Your task to perform on an android device: open app "DuckDuckGo Privacy Browser" (install if not already installed) Image 0: 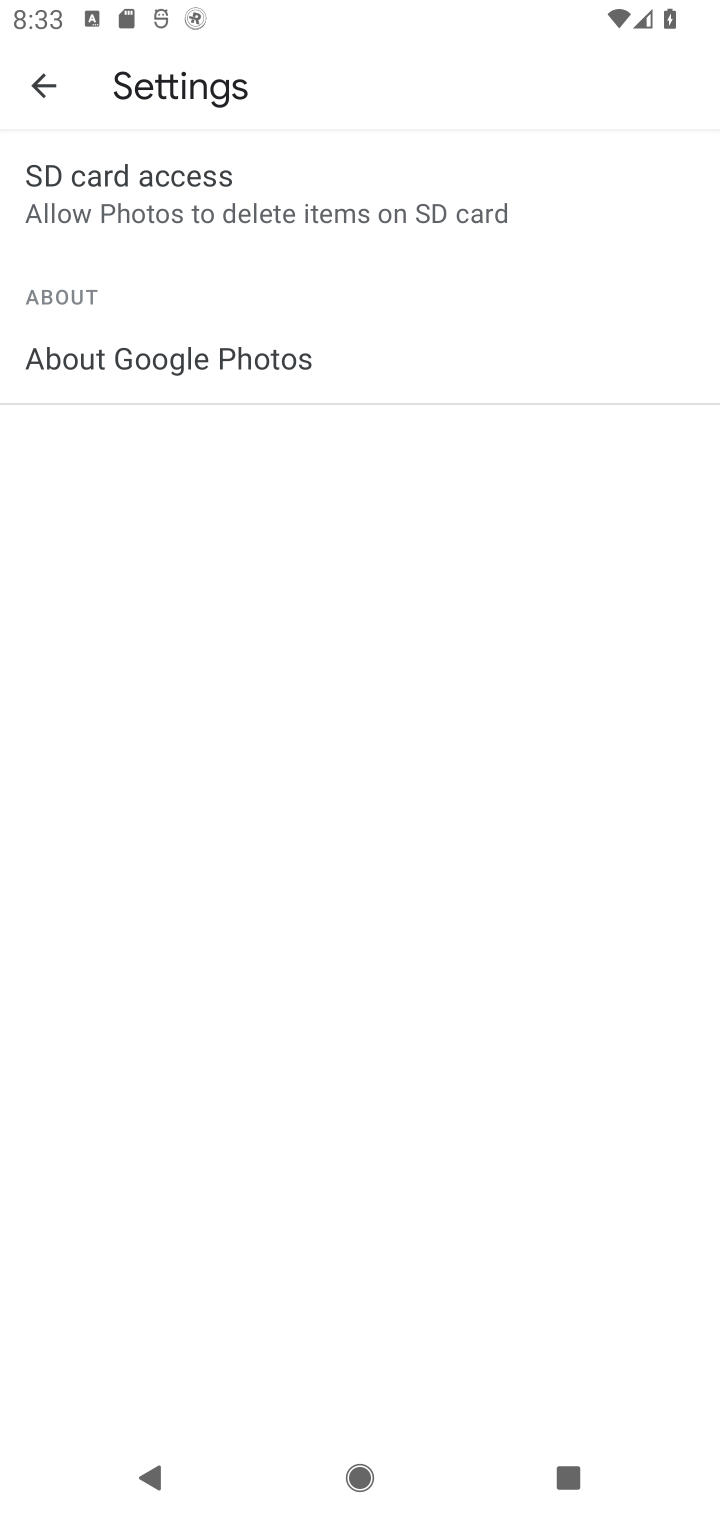
Step 0: press home button
Your task to perform on an android device: open app "DuckDuckGo Privacy Browser" (install if not already installed) Image 1: 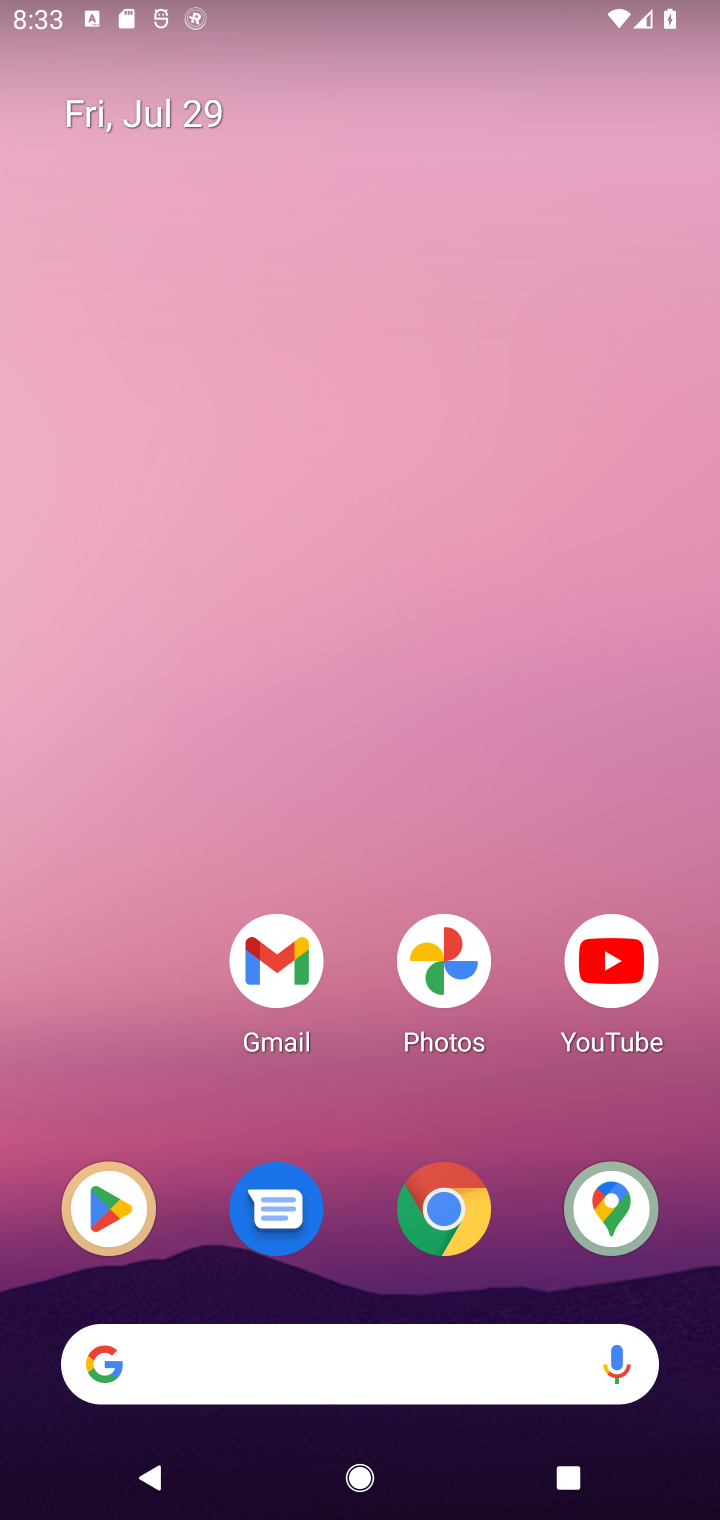
Step 1: click (104, 1220)
Your task to perform on an android device: open app "DuckDuckGo Privacy Browser" (install if not already installed) Image 2: 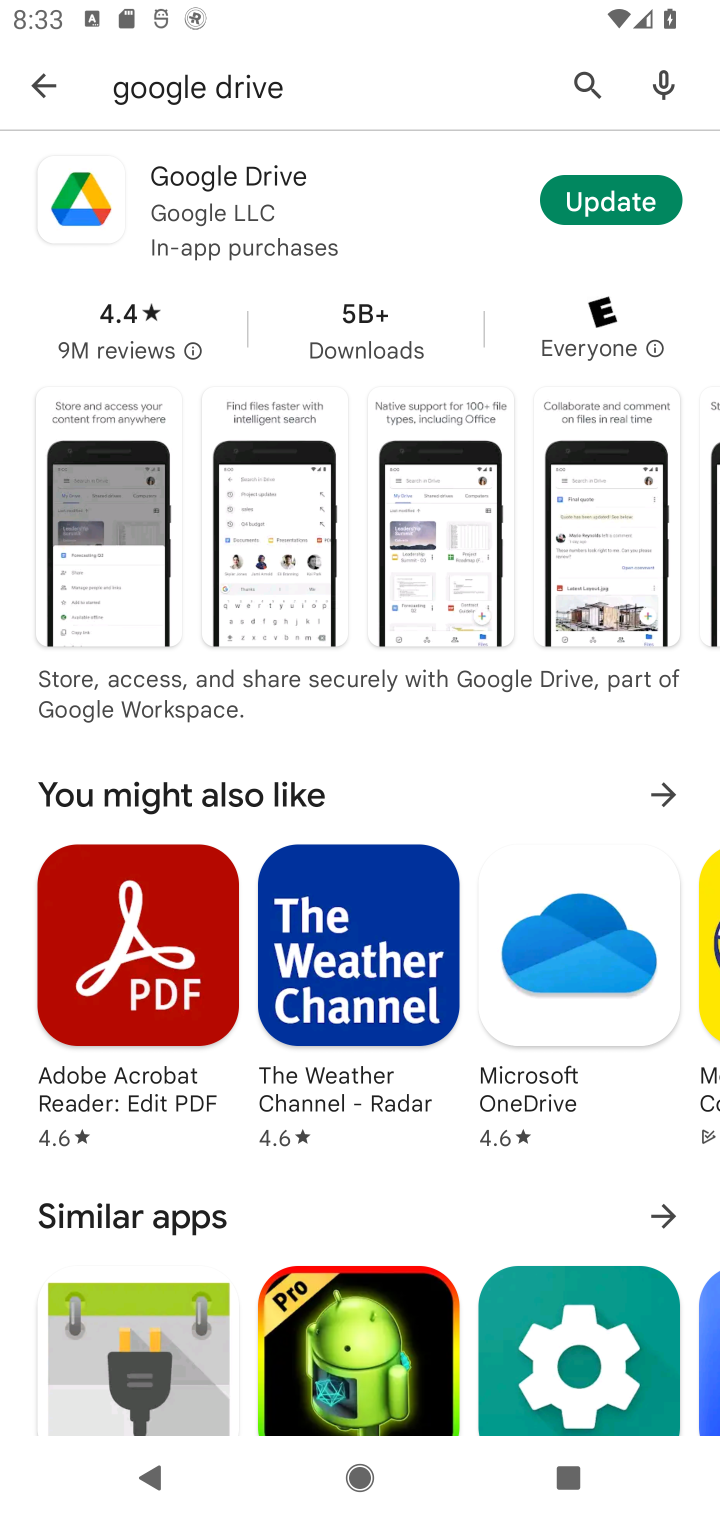
Step 2: click (599, 74)
Your task to perform on an android device: open app "DuckDuckGo Privacy Browser" (install if not already installed) Image 3: 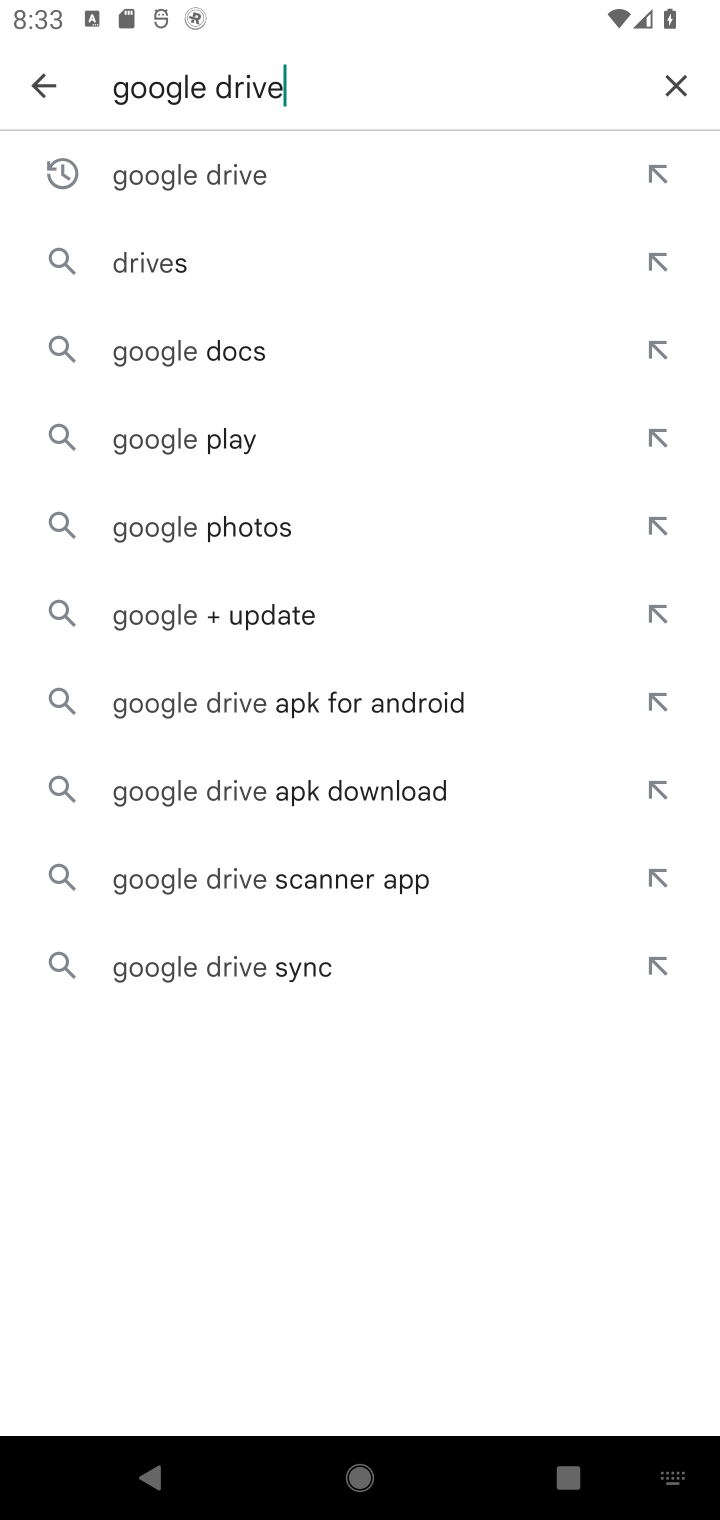
Step 3: click (678, 91)
Your task to perform on an android device: open app "DuckDuckGo Privacy Browser" (install if not already installed) Image 4: 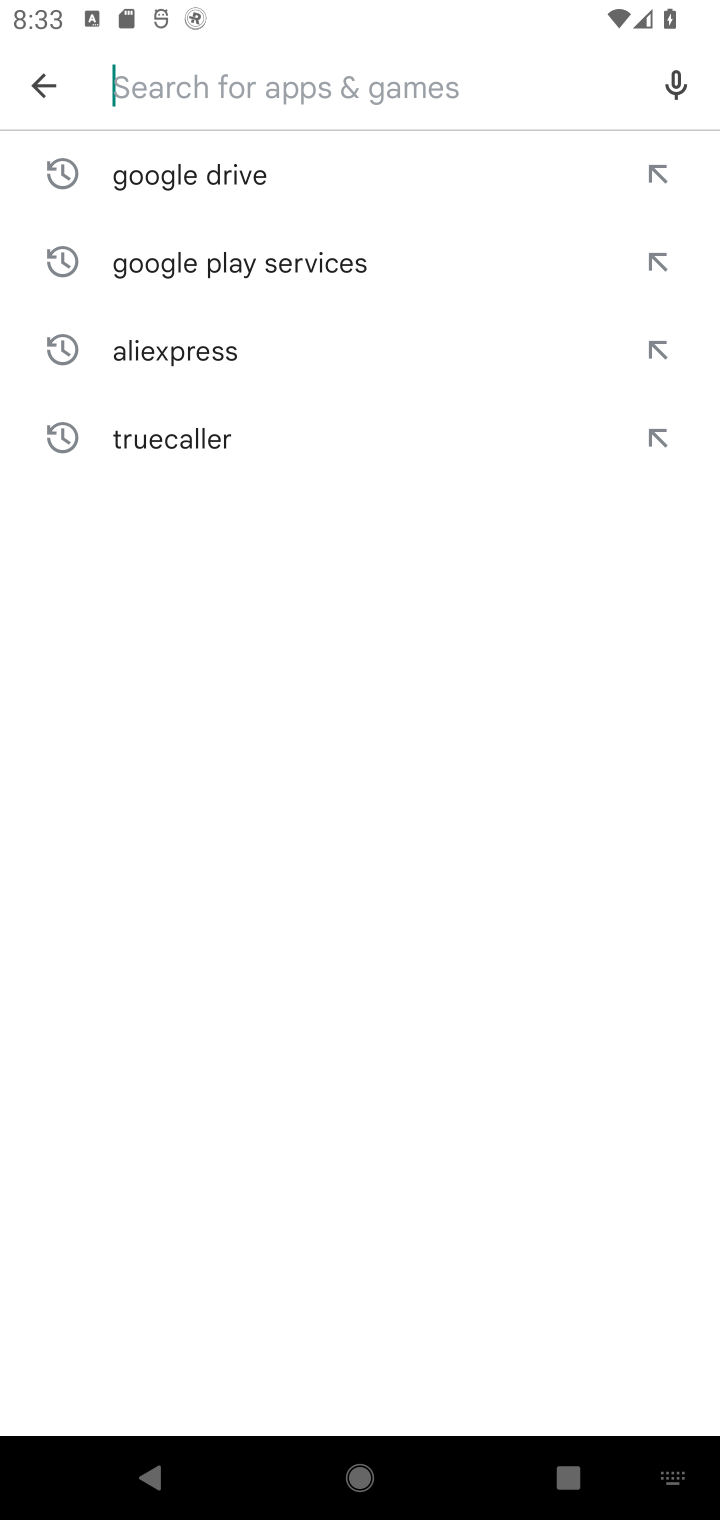
Step 4: type "DuckDuckGo Privacy Browser"
Your task to perform on an android device: open app "DuckDuckGo Privacy Browser" (install if not already installed) Image 5: 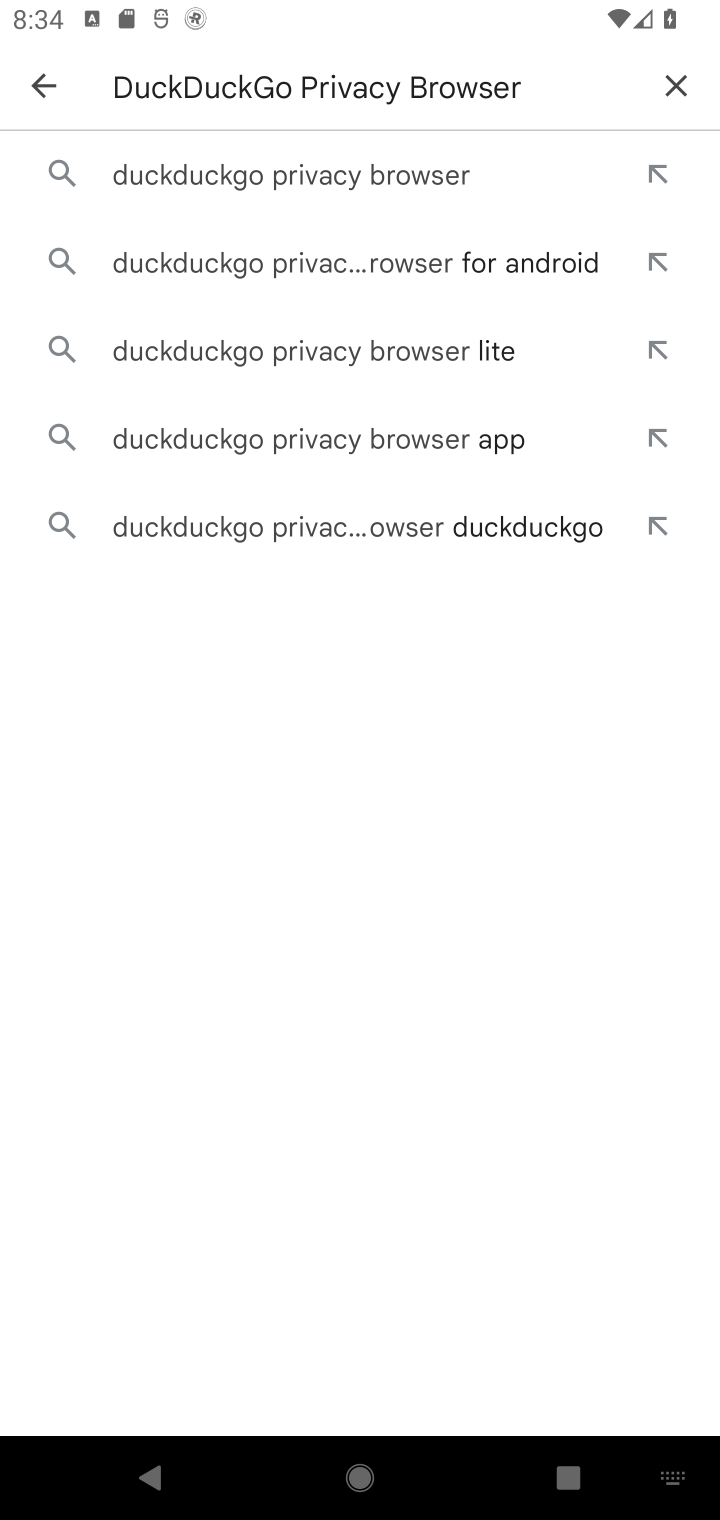
Step 5: click (360, 191)
Your task to perform on an android device: open app "DuckDuckGo Privacy Browser" (install if not already installed) Image 6: 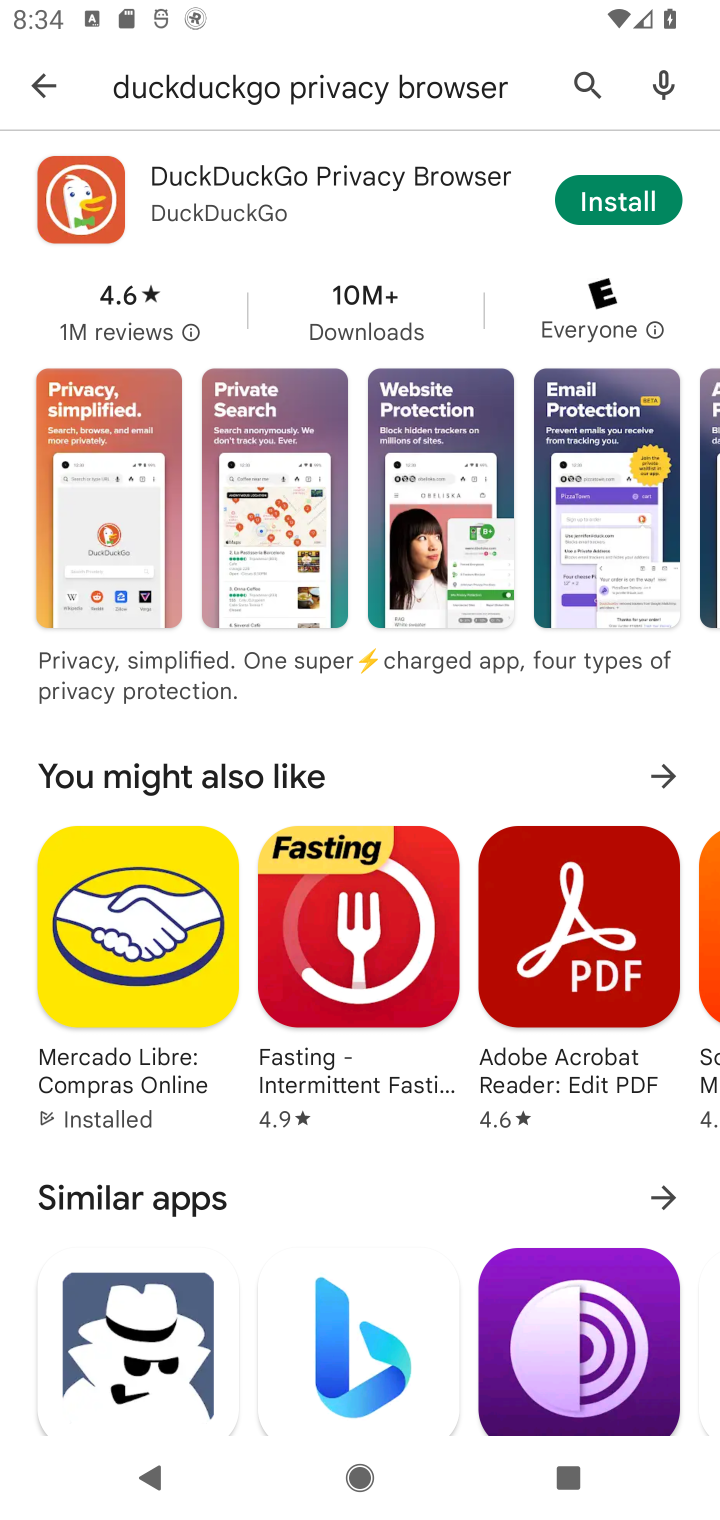
Step 6: click (614, 205)
Your task to perform on an android device: open app "DuckDuckGo Privacy Browser" (install if not already installed) Image 7: 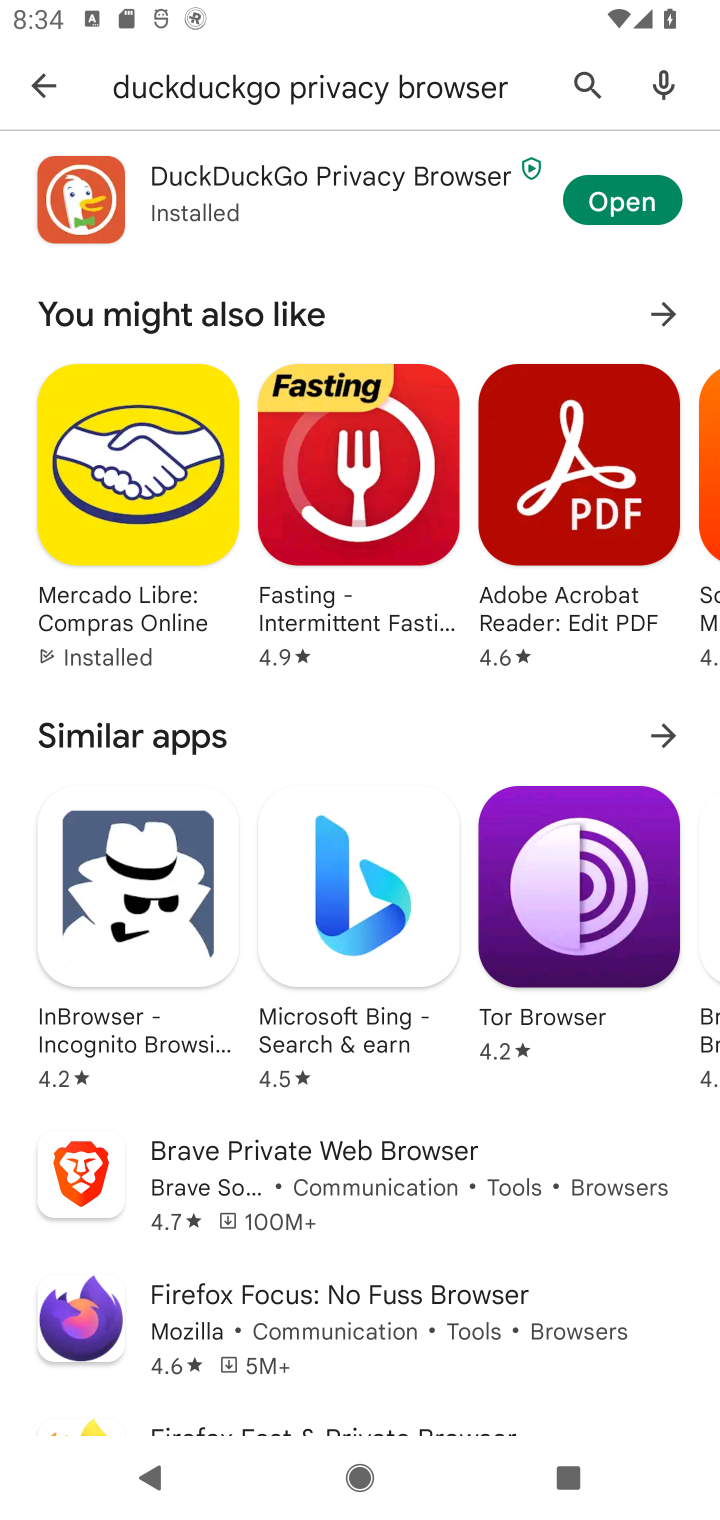
Step 7: click (594, 205)
Your task to perform on an android device: open app "DuckDuckGo Privacy Browser" (install if not already installed) Image 8: 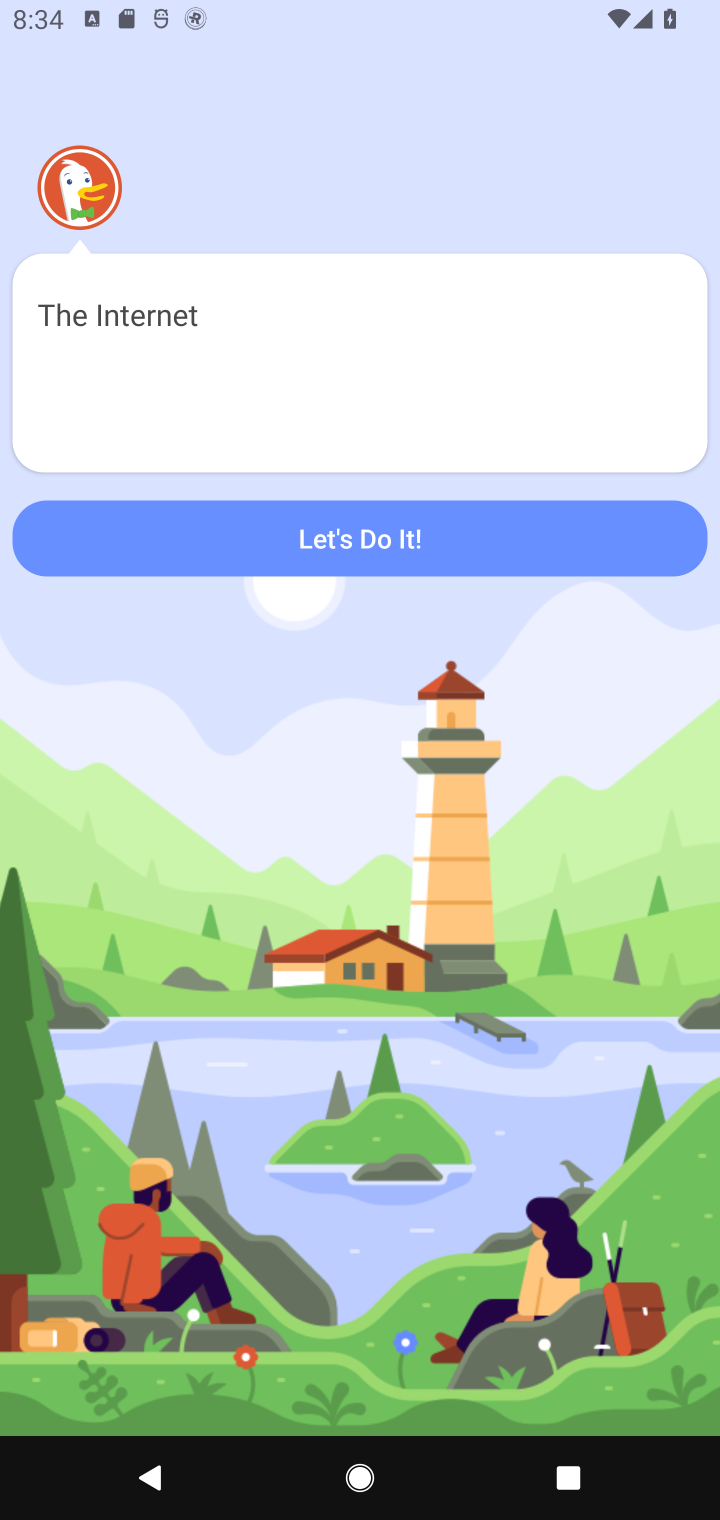
Step 8: task complete